Your task to perform on an android device: Open Amazon Image 0: 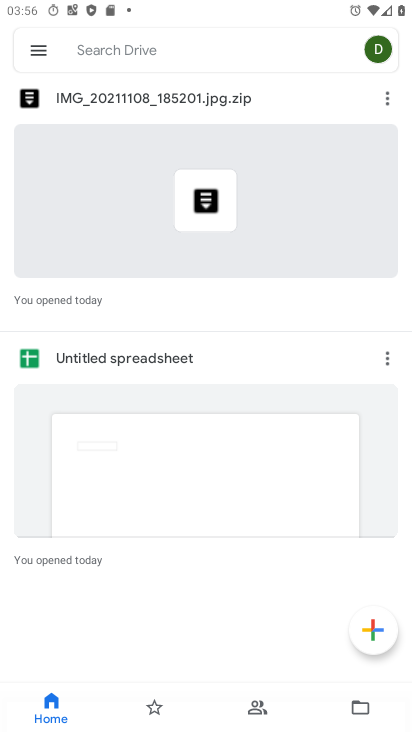
Step 0: press home button
Your task to perform on an android device: Open Amazon Image 1: 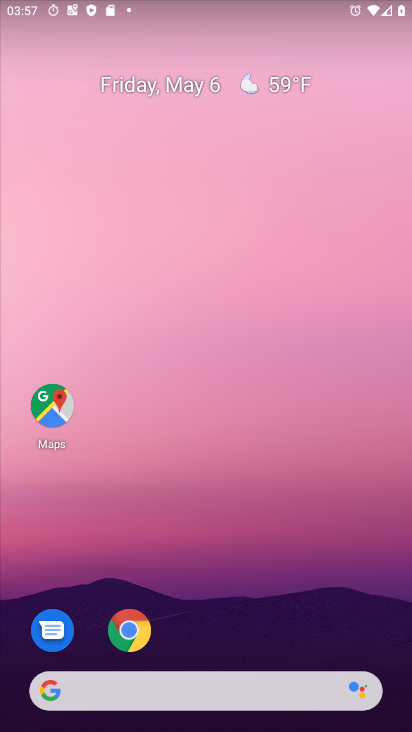
Step 1: click (117, 635)
Your task to perform on an android device: Open Amazon Image 2: 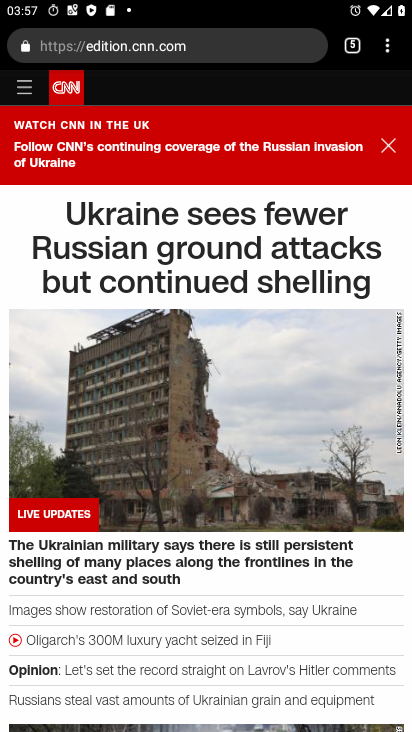
Step 2: click (350, 49)
Your task to perform on an android device: Open Amazon Image 3: 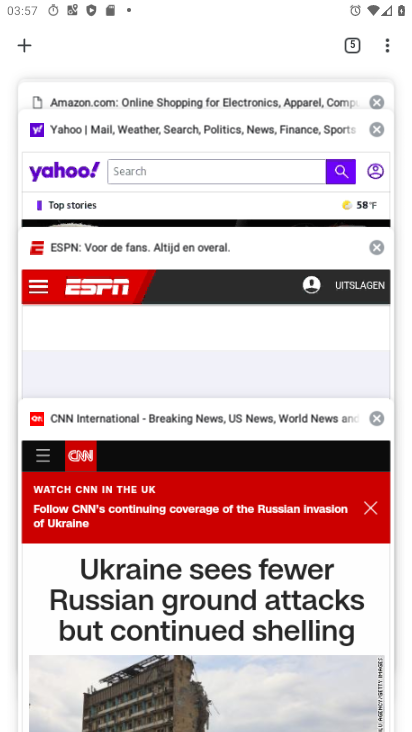
Step 3: click (64, 99)
Your task to perform on an android device: Open Amazon Image 4: 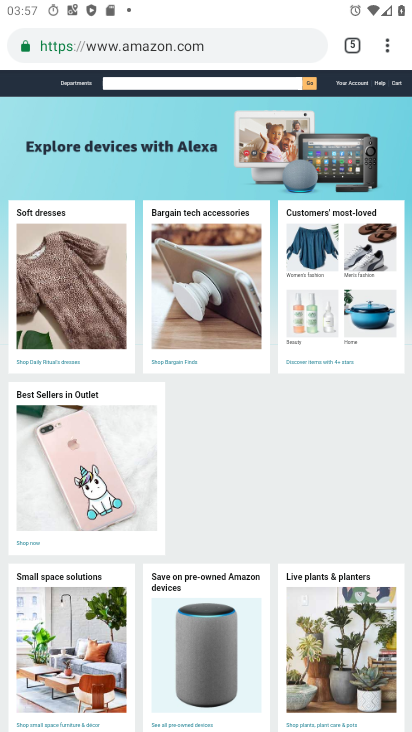
Step 4: task complete